Your task to perform on an android device: toggle data saver in the chrome app Image 0: 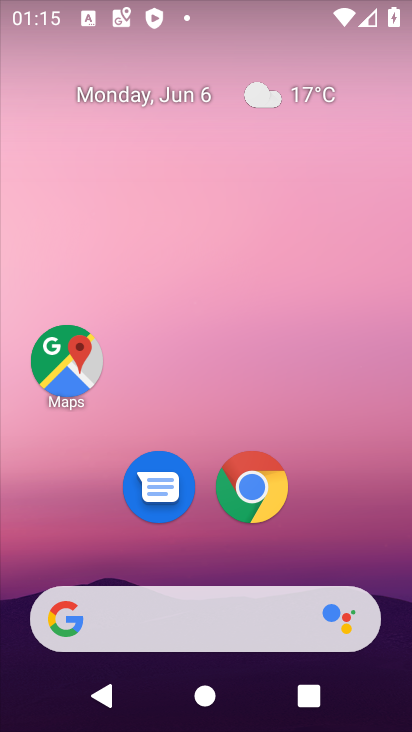
Step 0: click (254, 488)
Your task to perform on an android device: toggle data saver in the chrome app Image 1: 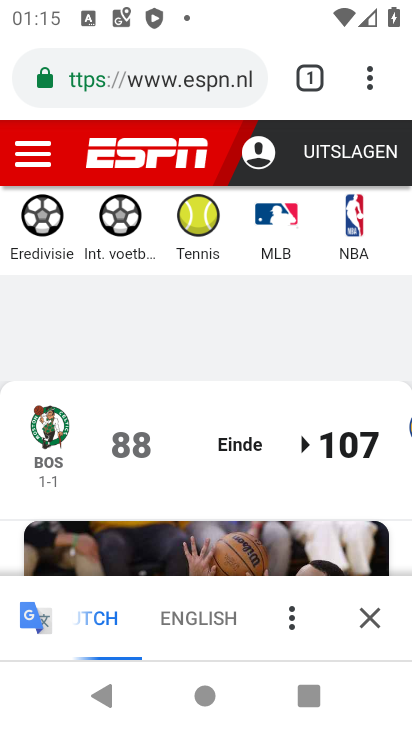
Step 1: click (368, 87)
Your task to perform on an android device: toggle data saver in the chrome app Image 2: 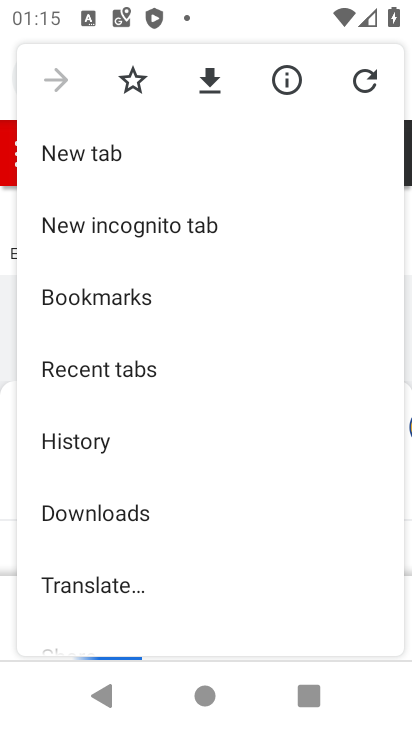
Step 2: drag from (200, 581) to (269, 182)
Your task to perform on an android device: toggle data saver in the chrome app Image 3: 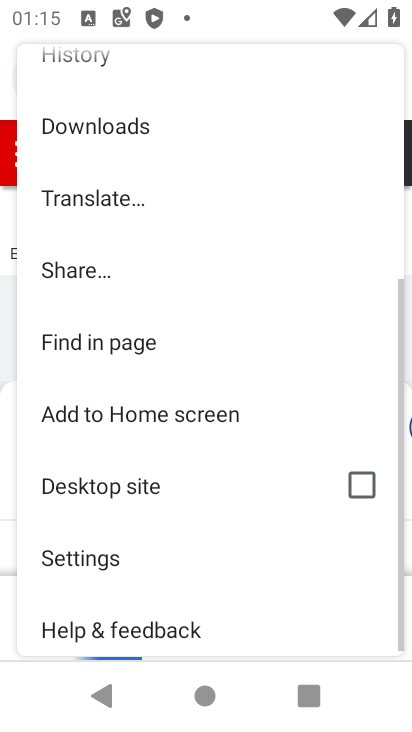
Step 3: click (98, 550)
Your task to perform on an android device: toggle data saver in the chrome app Image 4: 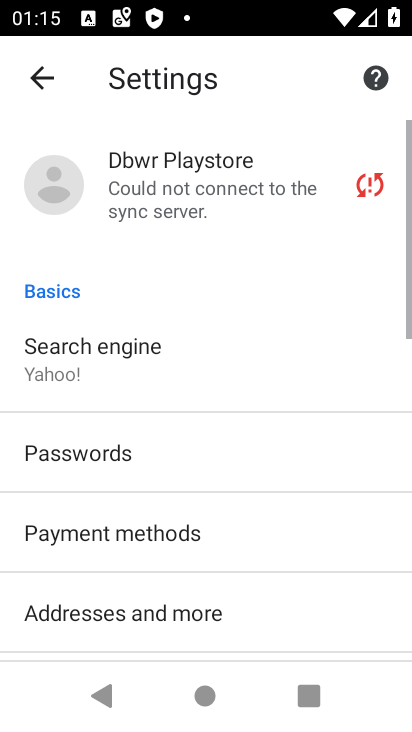
Step 4: drag from (265, 584) to (201, 133)
Your task to perform on an android device: toggle data saver in the chrome app Image 5: 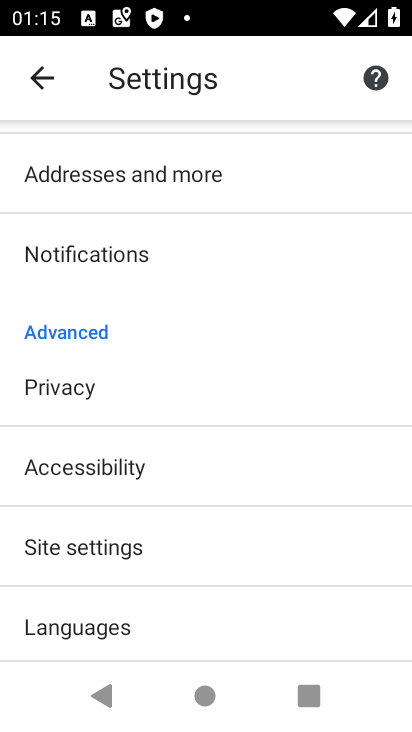
Step 5: drag from (198, 590) to (201, 214)
Your task to perform on an android device: toggle data saver in the chrome app Image 6: 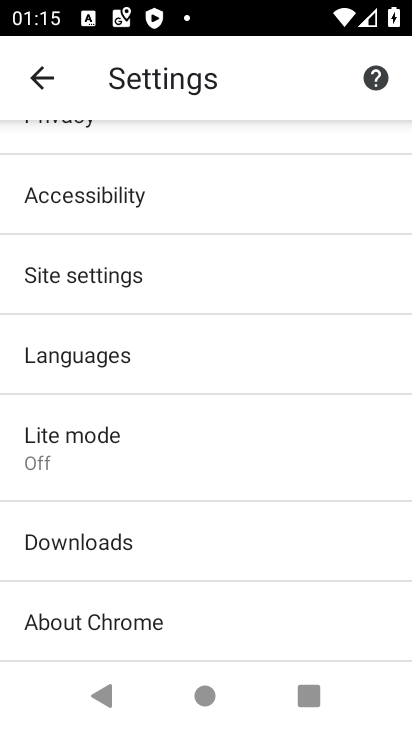
Step 6: click (63, 446)
Your task to perform on an android device: toggle data saver in the chrome app Image 7: 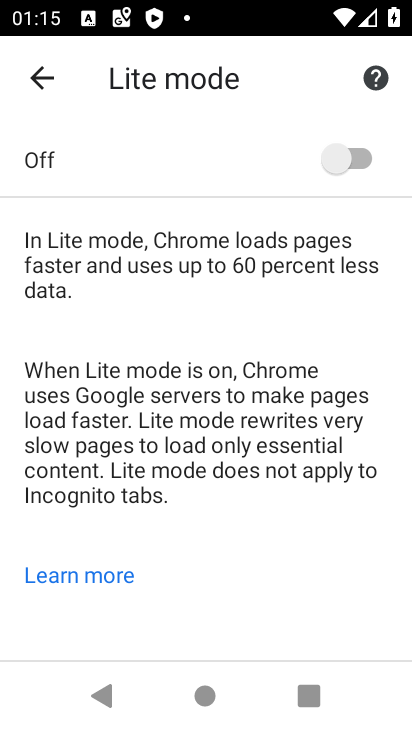
Step 7: click (362, 161)
Your task to perform on an android device: toggle data saver in the chrome app Image 8: 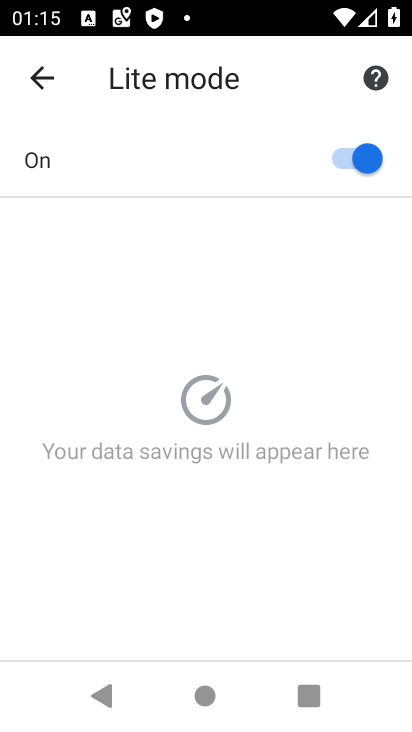
Step 8: task complete